Your task to perform on an android device: turn off picture-in-picture Image 0: 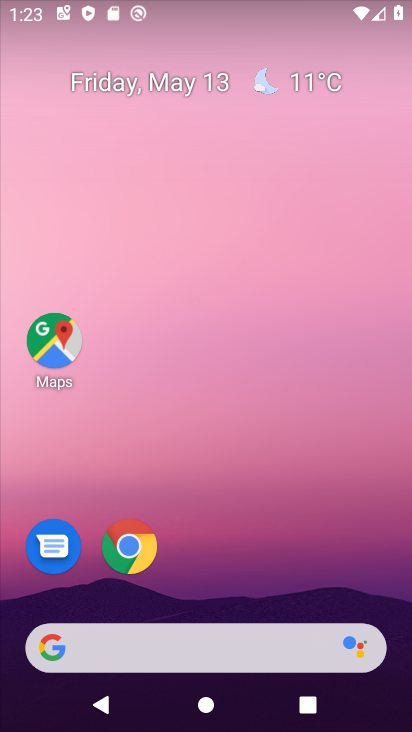
Step 0: drag from (170, 553) to (254, 193)
Your task to perform on an android device: turn off picture-in-picture Image 1: 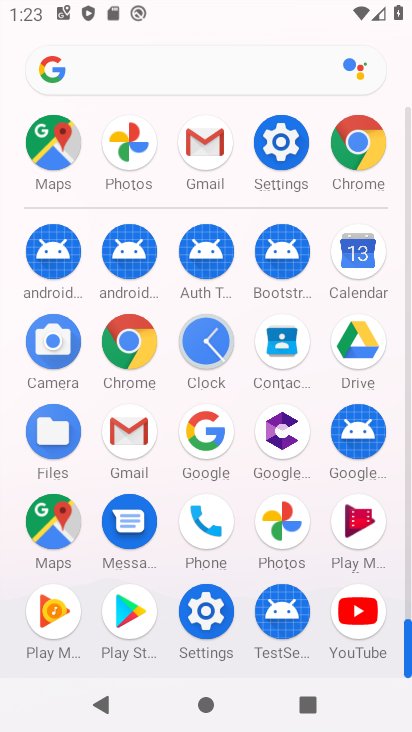
Step 1: click (278, 163)
Your task to perform on an android device: turn off picture-in-picture Image 2: 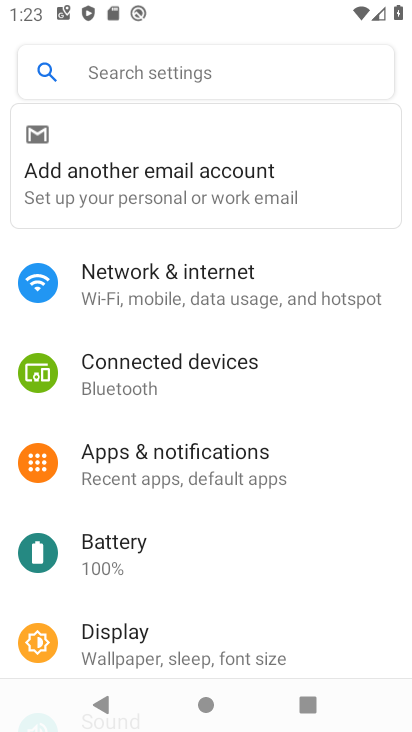
Step 2: drag from (200, 432) to (241, 261)
Your task to perform on an android device: turn off picture-in-picture Image 3: 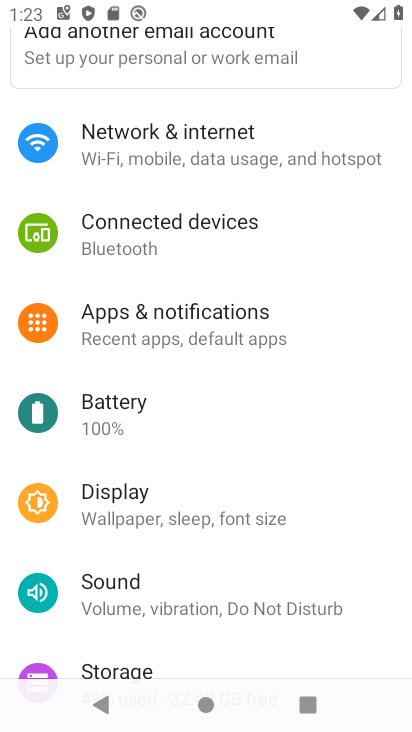
Step 3: drag from (155, 561) to (216, 292)
Your task to perform on an android device: turn off picture-in-picture Image 4: 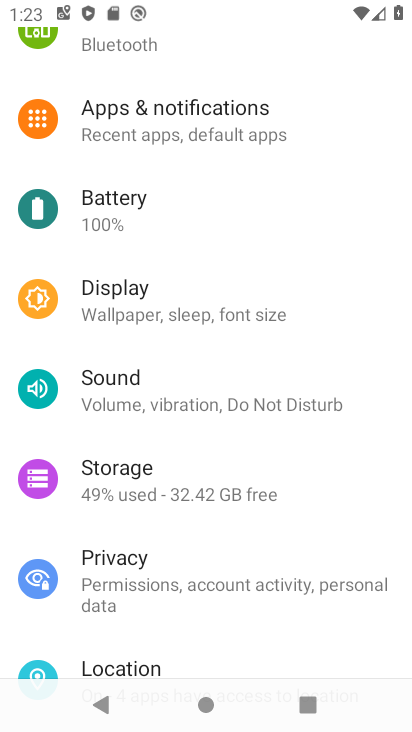
Step 4: drag from (191, 542) to (180, 641)
Your task to perform on an android device: turn off picture-in-picture Image 5: 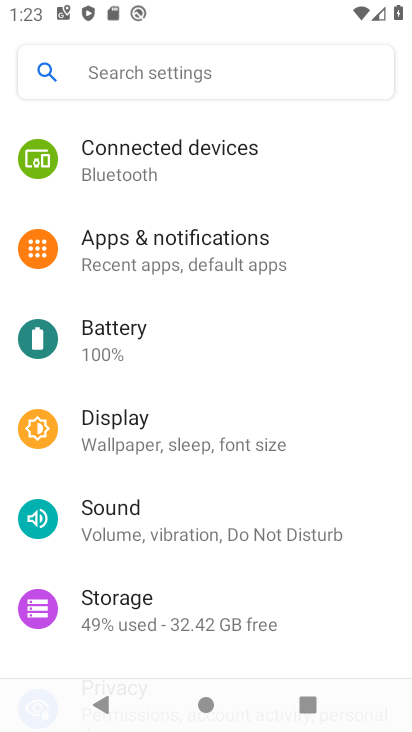
Step 5: click (229, 244)
Your task to perform on an android device: turn off picture-in-picture Image 6: 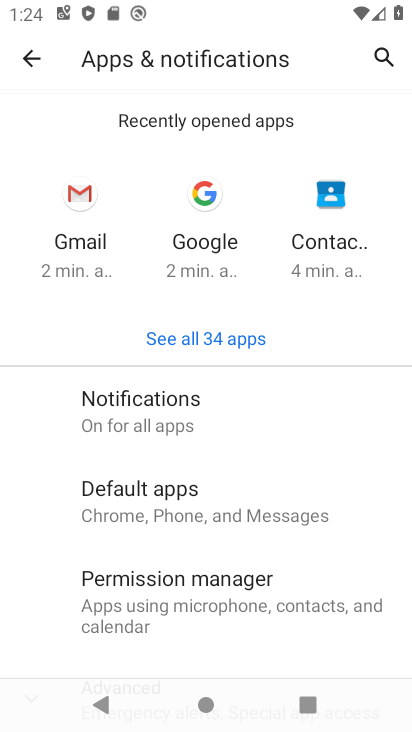
Step 6: drag from (227, 534) to (226, 136)
Your task to perform on an android device: turn off picture-in-picture Image 7: 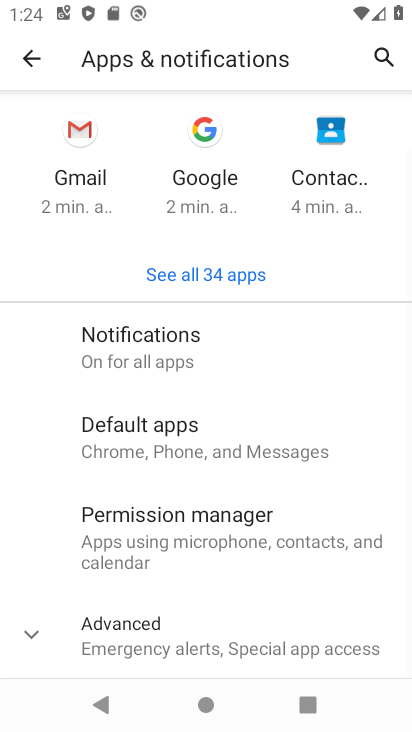
Step 7: drag from (181, 284) to (227, 35)
Your task to perform on an android device: turn off picture-in-picture Image 8: 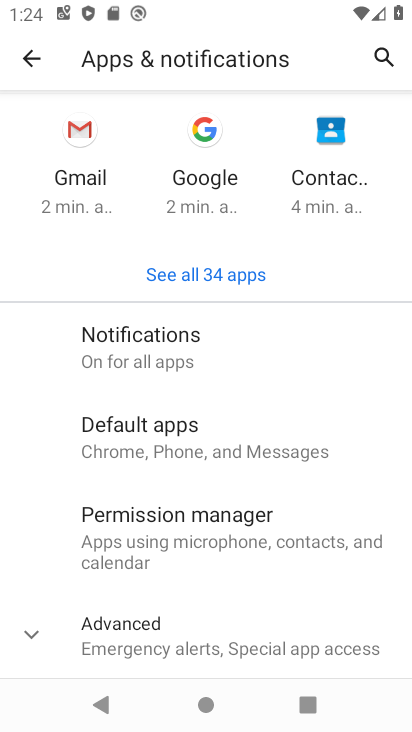
Step 8: click (148, 637)
Your task to perform on an android device: turn off picture-in-picture Image 9: 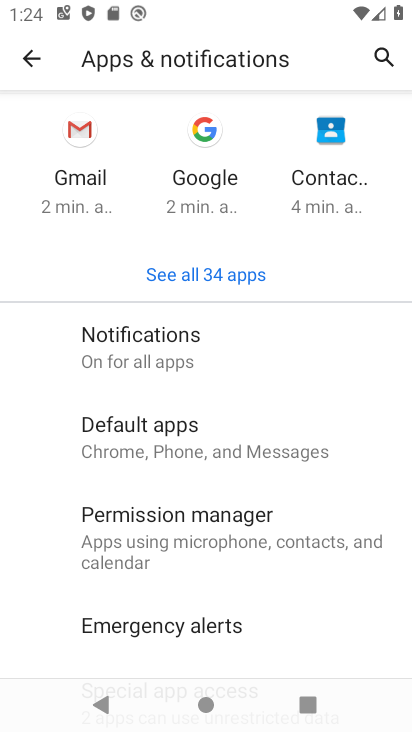
Step 9: drag from (180, 579) to (300, 153)
Your task to perform on an android device: turn off picture-in-picture Image 10: 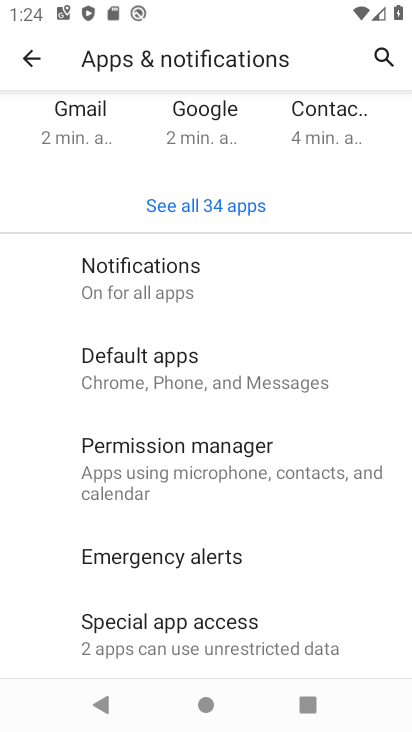
Step 10: drag from (172, 582) to (249, 263)
Your task to perform on an android device: turn off picture-in-picture Image 11: 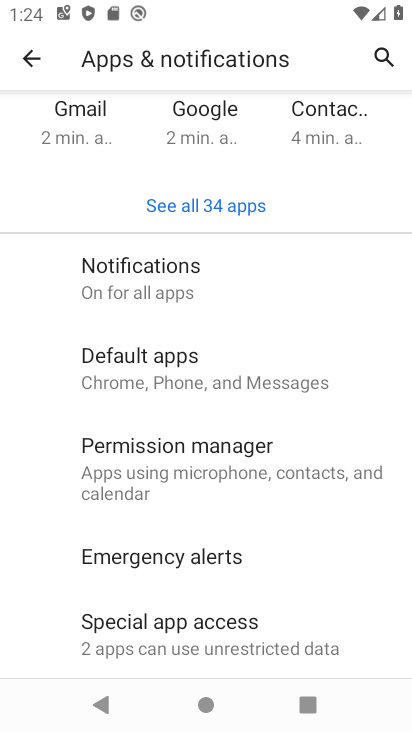
Step 11: drag from (140, 578) to (219, 240)
Your task to perform on an android device: turn off picture-in-picture Image 12: 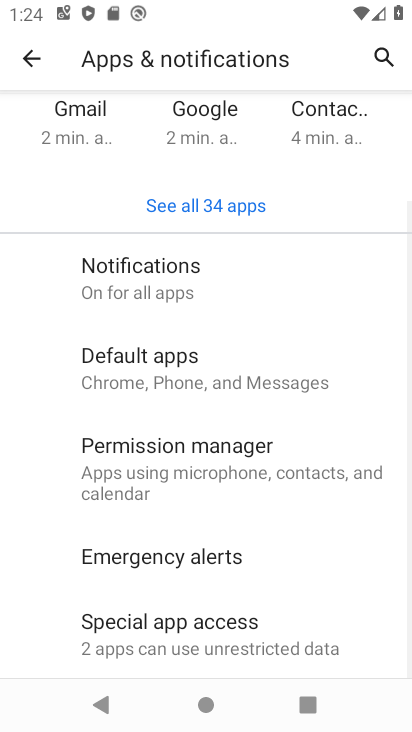
Step 12: click (178, 664)
Your task to perform on an android device: turn off picture-in-picture Image 13: 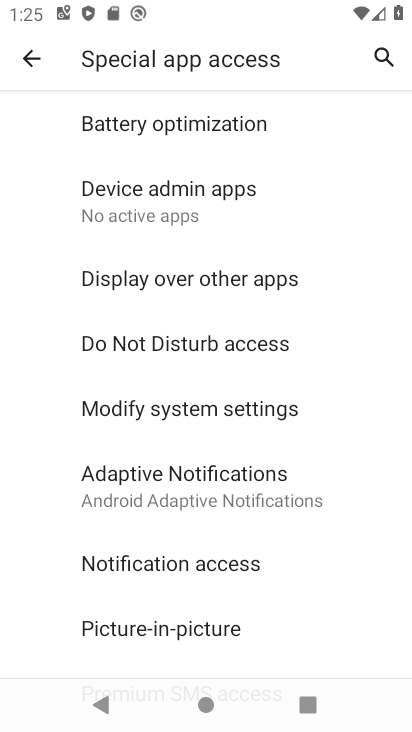
Step 13: drag from (200, 602) to (219, 521)
Your task to perform on an android device: turn off picture-in-picture Image 14: 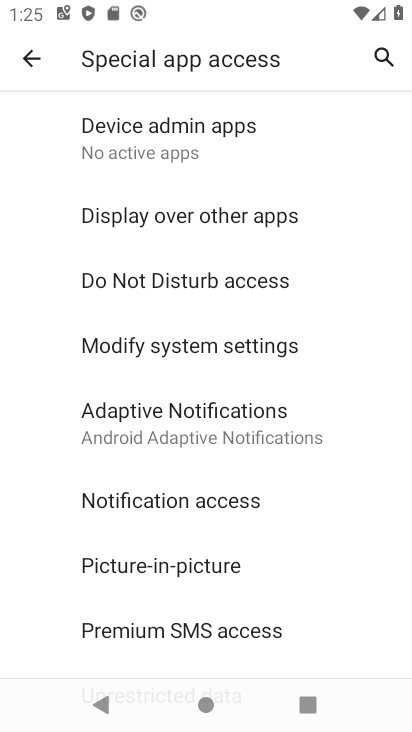
Step 14: click (196, 578)
Your task to perform on an android device: turn off picture-in-picture Image 15: 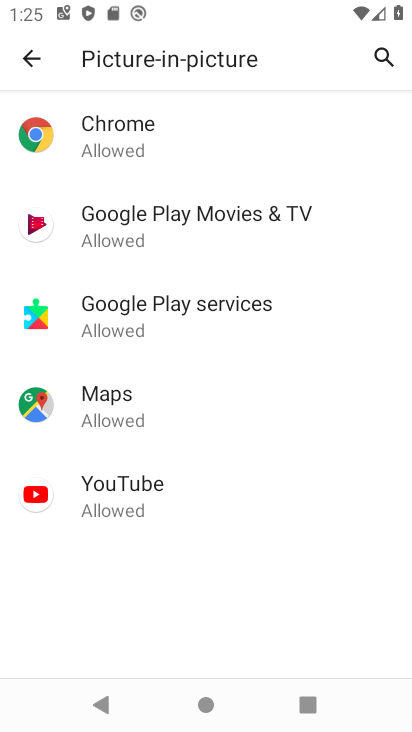
Step 15: click (197, 147)
Your task to perform on an android device: turn off picture-in-picture Image 16: 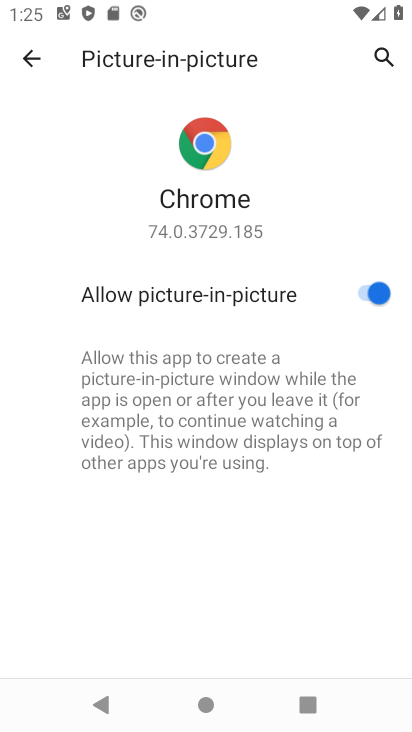
Step 16: click (366, 287)
Your task to perform on an android device: turn off picture-in-picture Image 17: 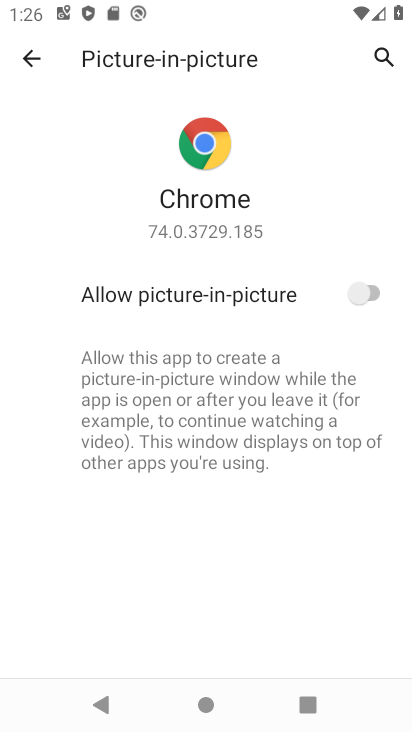
Step 17: task complete